Your task to perform on an android device: Show me popular videos on Youtube Image 0: 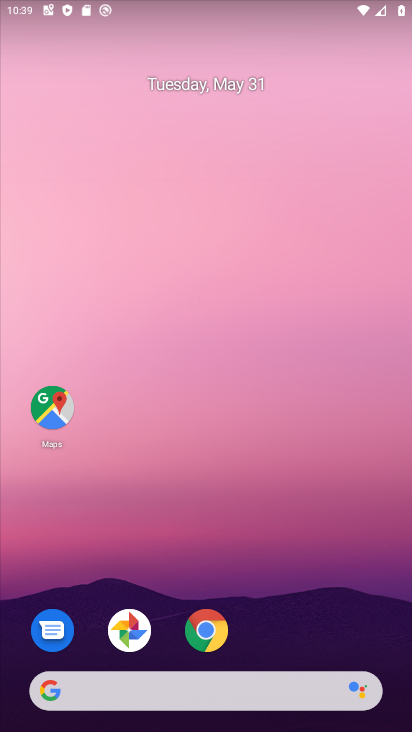
Step 0: drag from (305, 611) to (253, 181)
Your task to perform on an android device: Show me popular videos on Youtube Image 1: 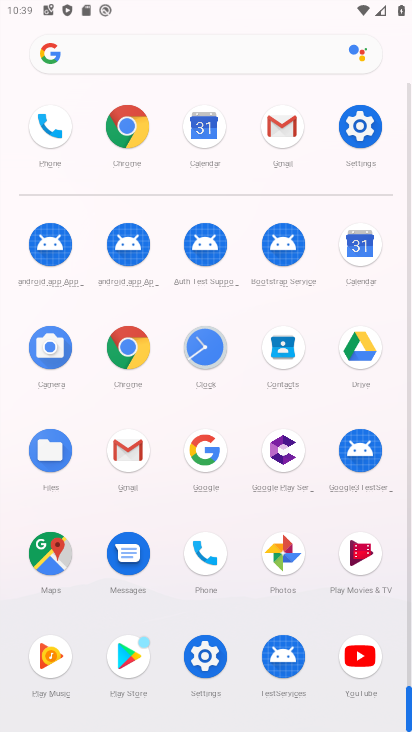
Step 1: click (363, 647)
Your task to perform on an android device: Show me popular videos on Youtube Image 2: 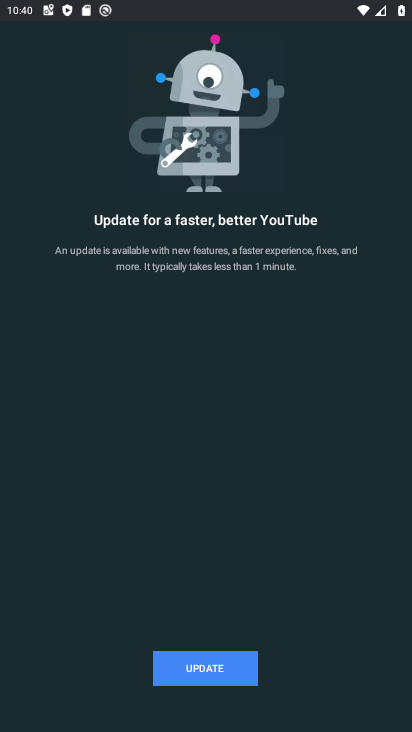
Step 2: task complete